Your task to perform on an android device: Go to CNN.com Image 0: 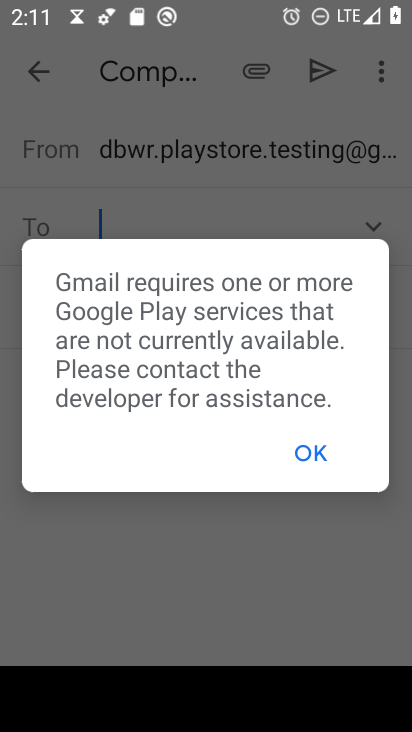
Step 0: press home button
Your task to perform on an android device: Go to CNN.com Image 1: 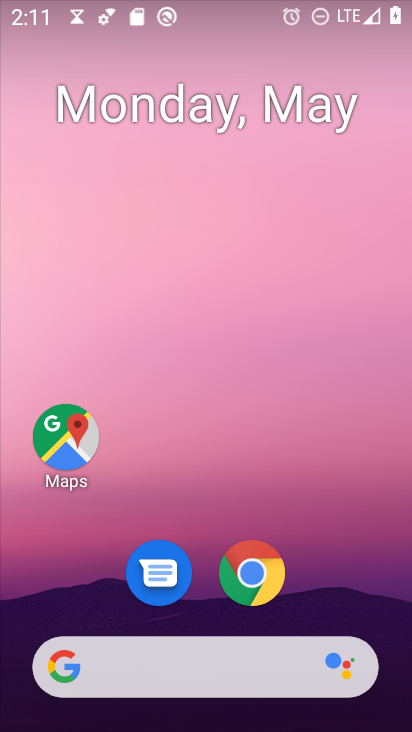
Step 1: drag from (227, 634) to (250, 159)
Your task to perform on an android device: Go to CNN.com Image 2: 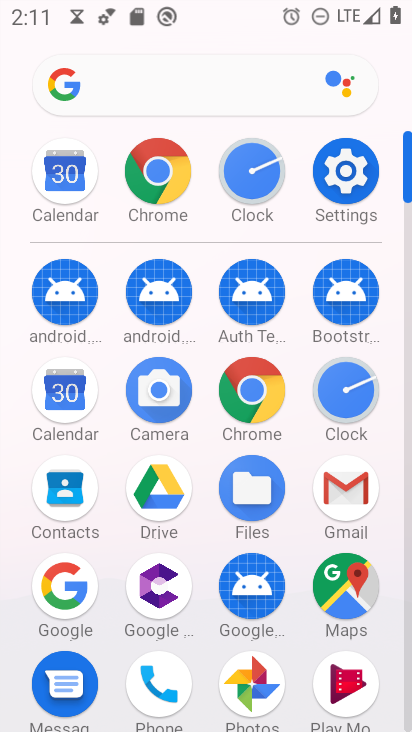
Step 2: click (260, 400)
Your task to perform on an android device: Go to CNN.com Image 3: 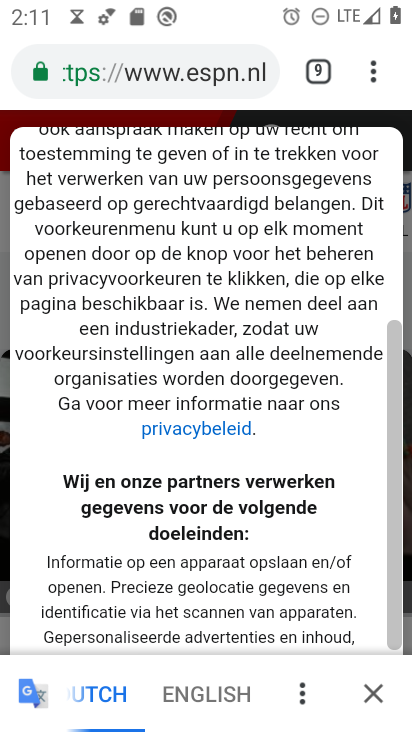
Step 3: click (215, 61)
Your task to perform on an android device: Go to CNN.com Image 4: 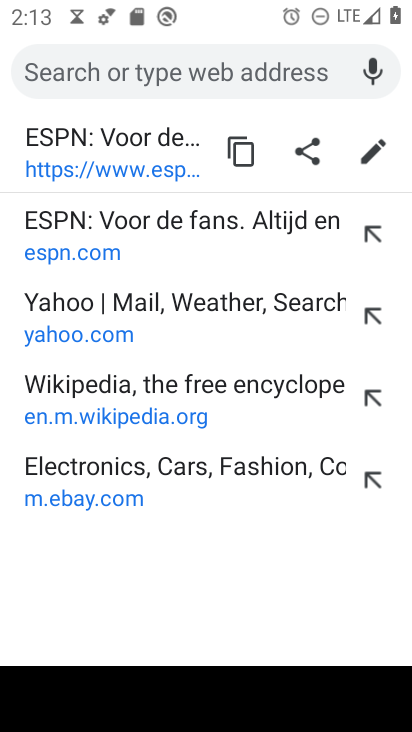
Step 4: type "cnn.com"
Your task to perform on an android device: Go to CNN.com Image 5: 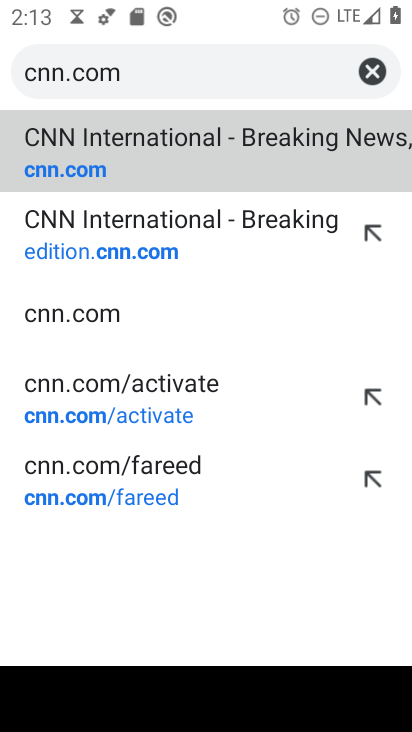
Step 5: click (152, 160)
Your task to perform on an android device: Go to CNN.com Image 6: 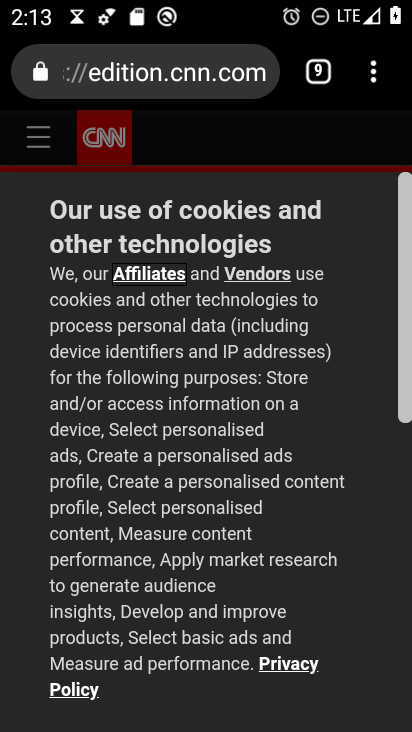
Step 6: task complete